Your task to perform on an android device: visit the assistant section in the google photos Image 0: 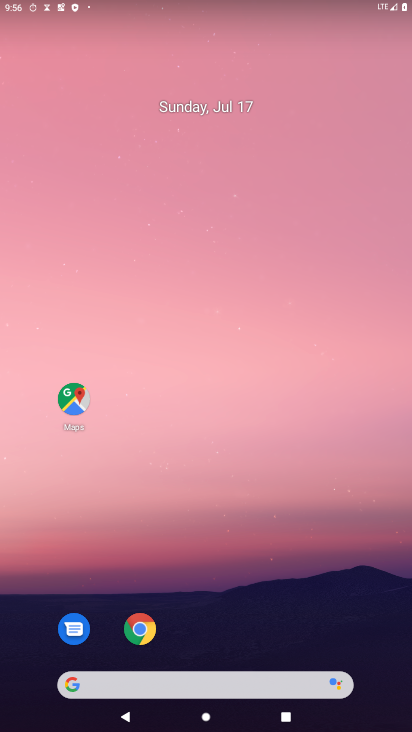
Step 0: drag from (232, 729) to (212, 92)
Your task to perform on an android device: visit the assistant section in the google photos Image 1: 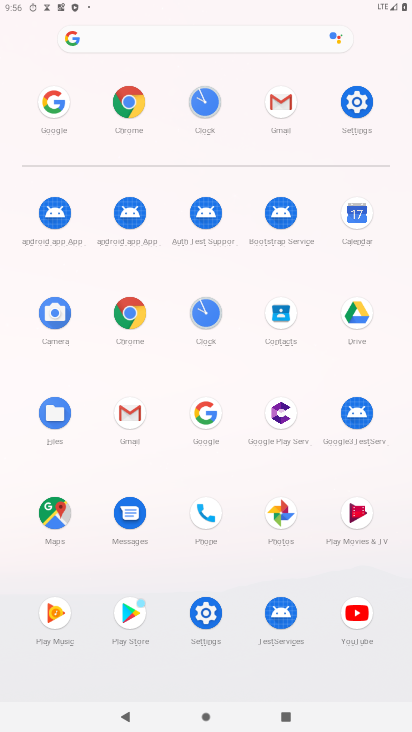
Step 1: click (286, 515)
Your task to perform on an android device: visit the assistant section in the google photos Image 2: 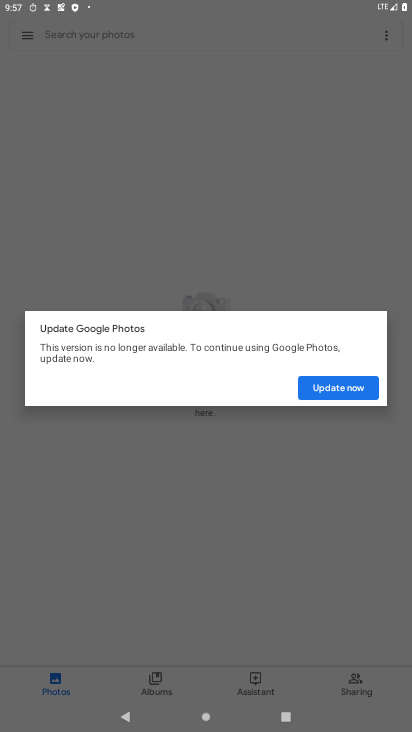
Step 2: task complete